Your task to perform on an android device: toggle notifications settings in the gmail app Image 0: 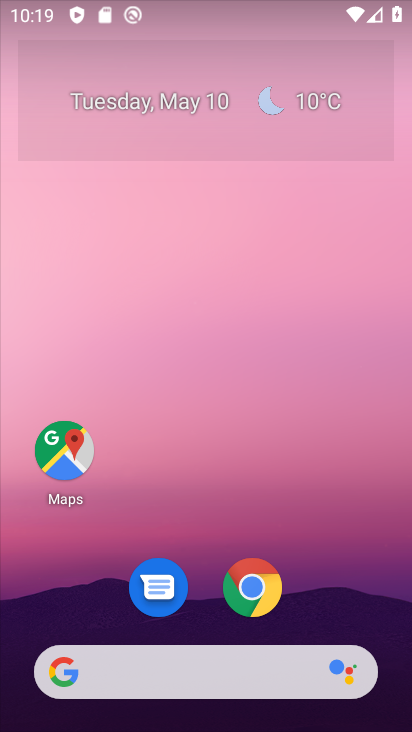
Step 0: drag from (222, 636) to (295, 107)
Your task to perform on an android device: toggle notifications settings in the gmail app Image 1: 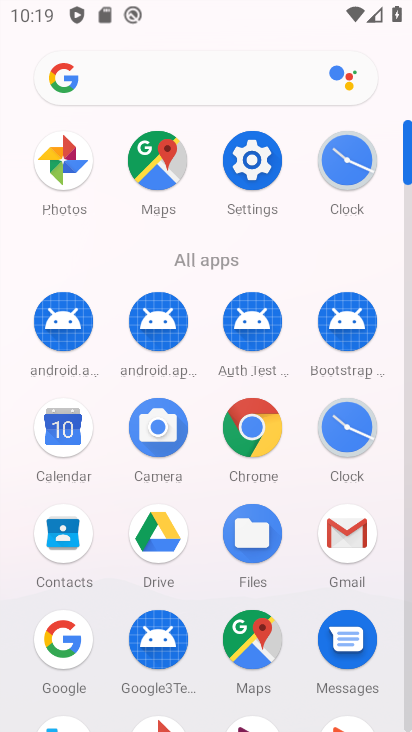
Step 1: click (347, 547)
Your task to perform on an android device: toggle notifications settings in the gmail app Image 2: 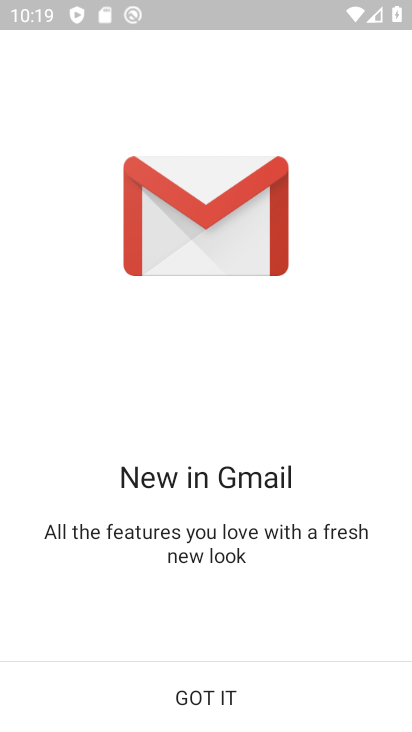
Step 2: click (202, 725)
Your task to perform on an android device: toggle notifications settings in the gmail app Image 3: 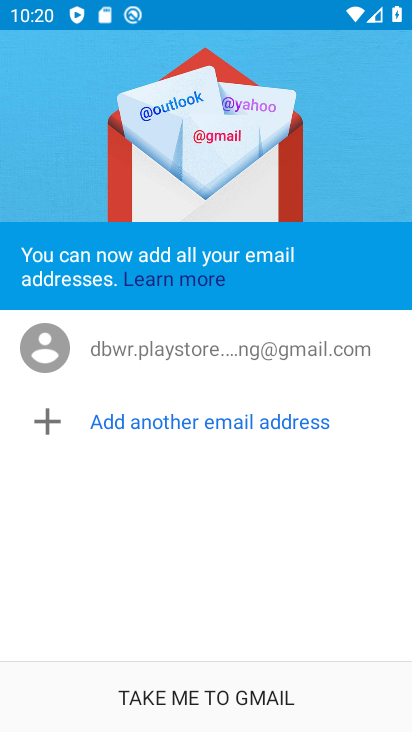
Step 3: click (212, 705)
Your task to perform on an android device: toggle notifications settings in the gmail app Image 4: 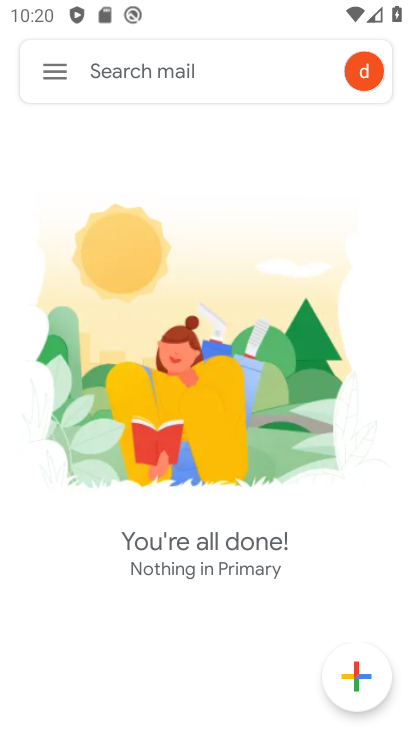
Step 4: click (27, 57)
Your task to perform on an android device: toggle notifications settings in the gmail app Image 5: 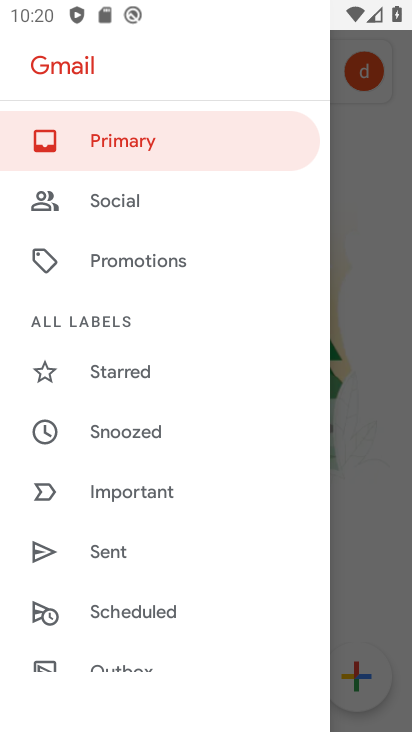
Step 5: drag from (105, 507) to (58, 1)
Your task to perform on an android device: toggle notifications settings in the gmail app Image 6: 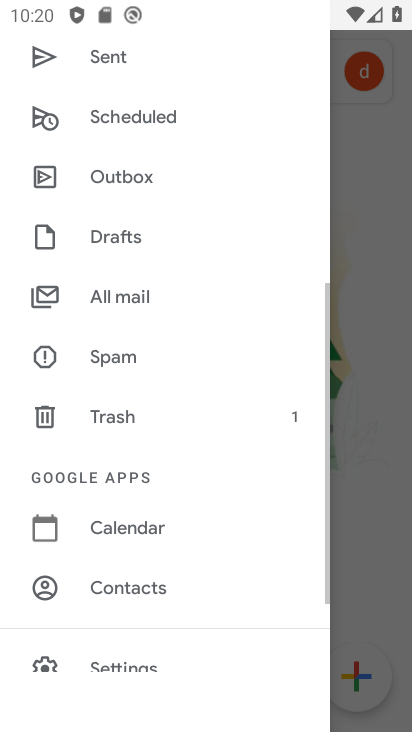
Step 6: drag from (71, 555) to (28, 11)
Your task to perform on an android device: toggle notifications settings in the gmail app Image 7: 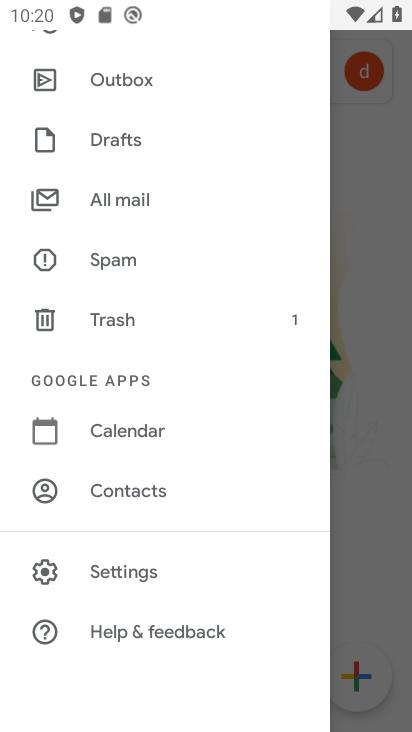
Step 7: click (120, 585)
Your task to perform on an android device: toggle notifications settings in the gmail app Image 8: 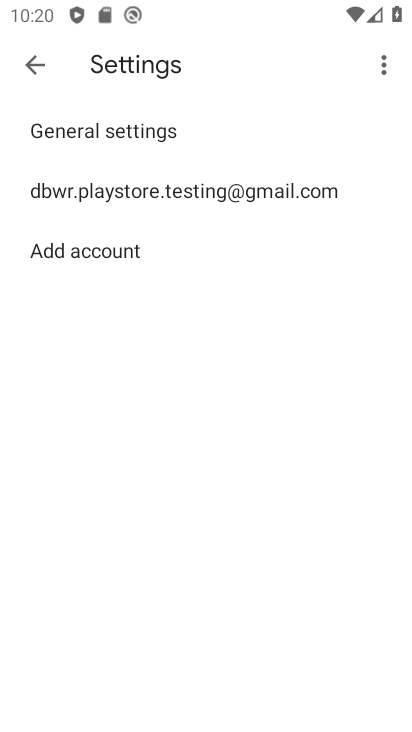
Step 8: click (107, 204)
Your task to perform on an android device: toggle notifications settings in the gmail app Image 9: 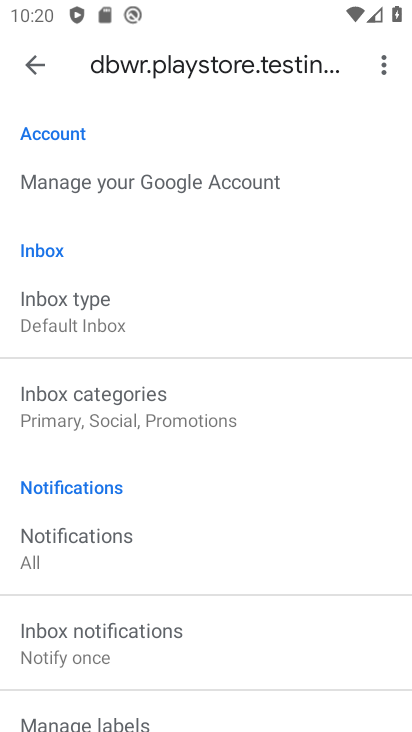
Step 9: click (28, 66)
Your task to perform on an android device: toggle notifications settings in the gmail app Image 10: 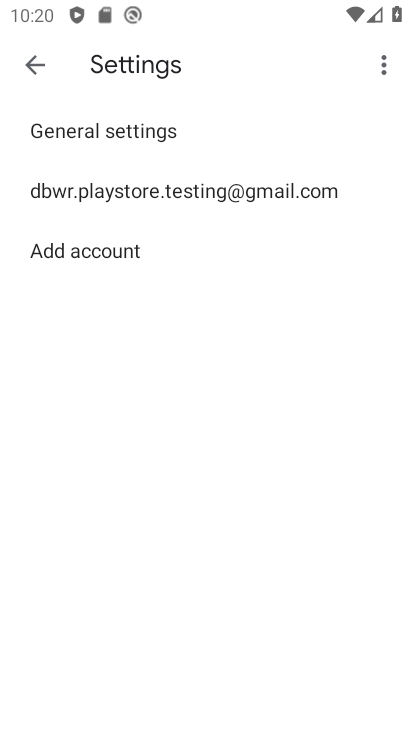
Step 10: click (94, 107)
Your task to perform on an android device: toggle notifications settings in the gmail app Image 11: 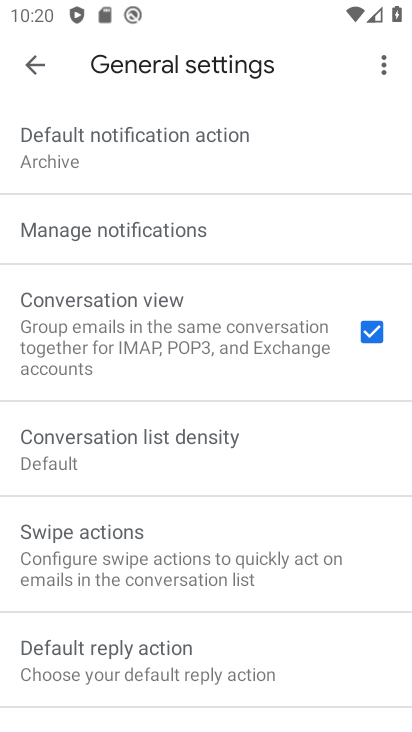
Step 11: click (87, 233)
Your task to perform on an android device: toggle notifications settings in the gmail app Image 12: 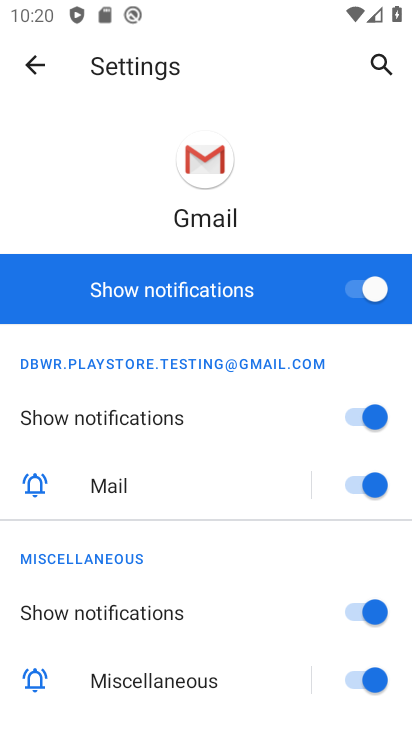
Step 12: click (375, 280)
Your task to perform on an android device: toggle notifications settings in the gmail app Image 13: 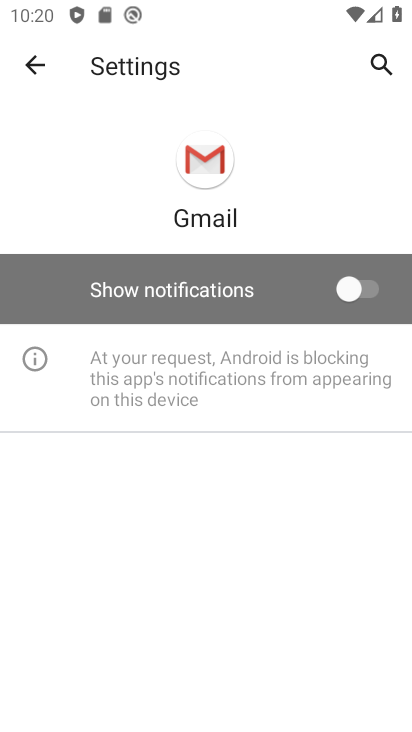
Step 13: task complete